Your task to perform on an android device: Go to settings Image 0: 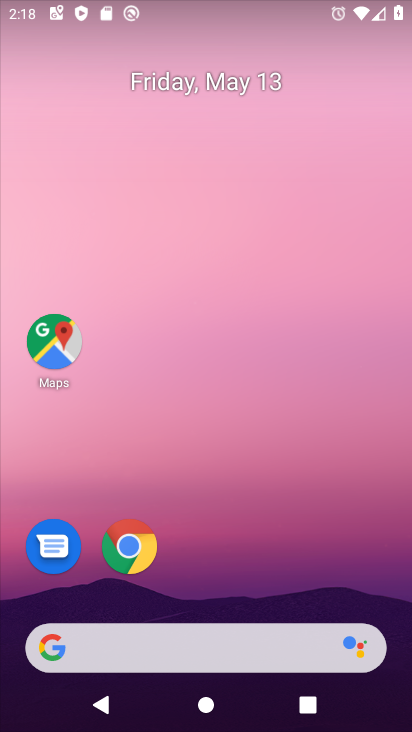
Step 0: drag from (300, 556) to (257, 155)
Your task to perform on an android device: Go to settings Image 1: 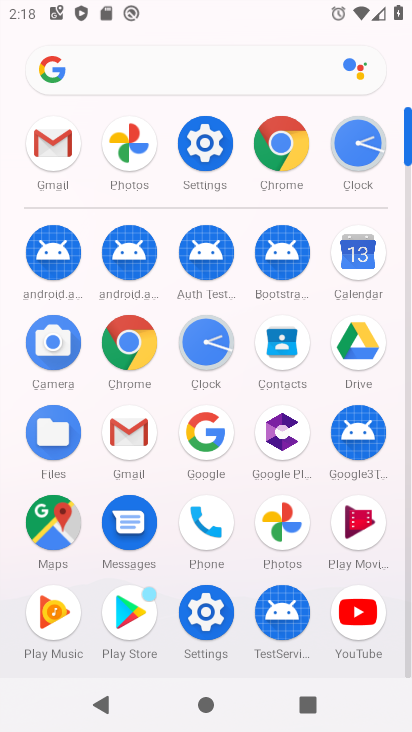
Step 1: click (198, 126)
Your task to perform on an android device: Go to settings Image 2: 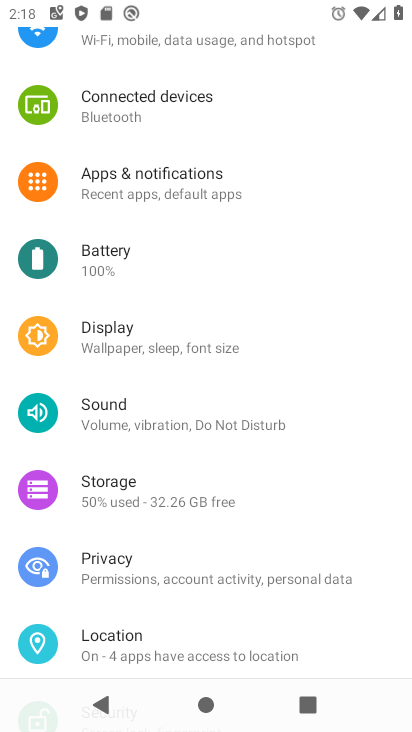
Step 2: task complete